Your task to perform on an android device: turn on airplane mode Image 0: 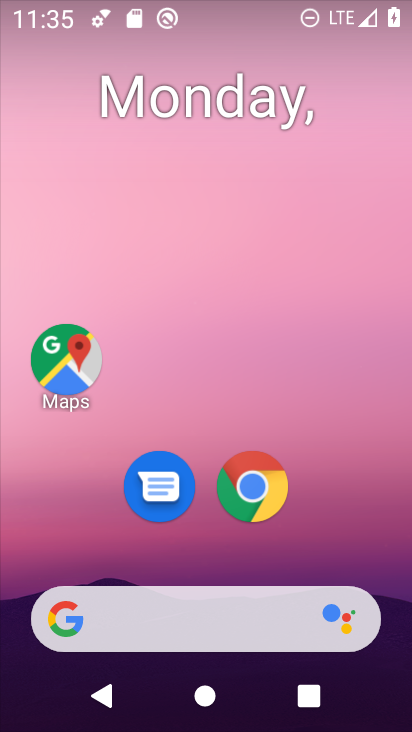
Step 0: drag from (310, 3) to (327, 467)
Your task to perform on an android device: turn on airplane mode Image 1: 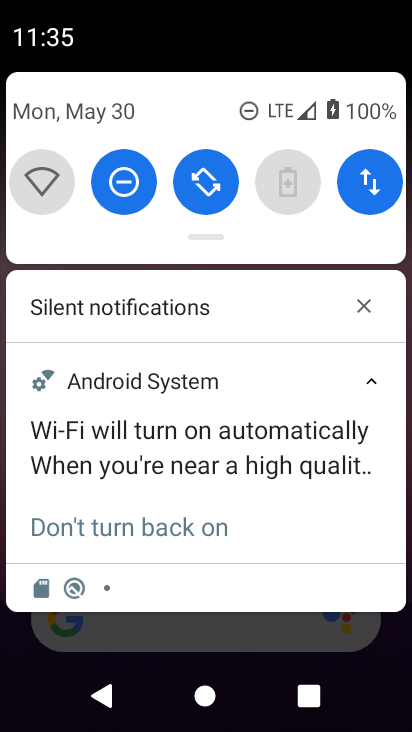
Step 1: drag from (232, 224) to (201, 618)
Your task to perform on an android device: turn on airplane mode Image 2: 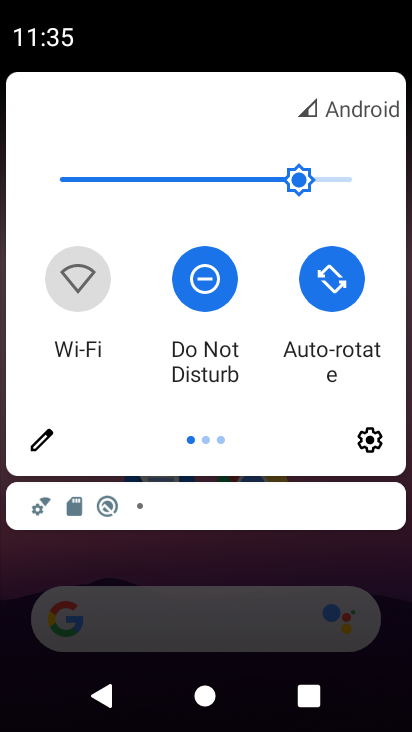
Step 2: drag from (303, 380) to (2, 369)
Your task to perform on an android device: turn on airplane mode Image 3: 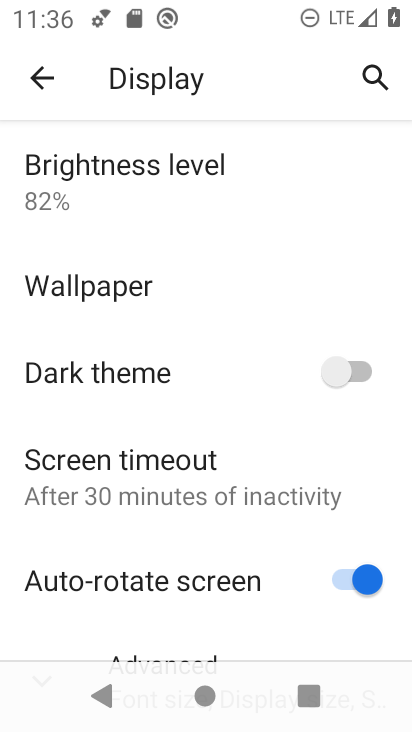
Step 3: click (52, 79)
Your task to perform on an android device: turn on airplane mode Image 4: 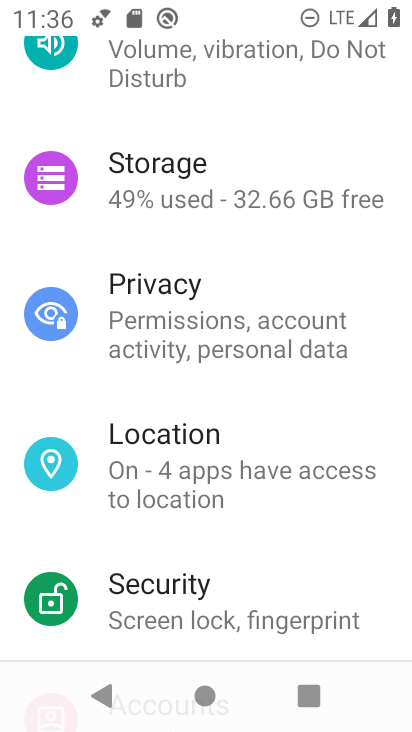
Step 4: drag from (180, 117) to (176, 634)
Your task to perform on an android device: turn on airplane mode Image 5: 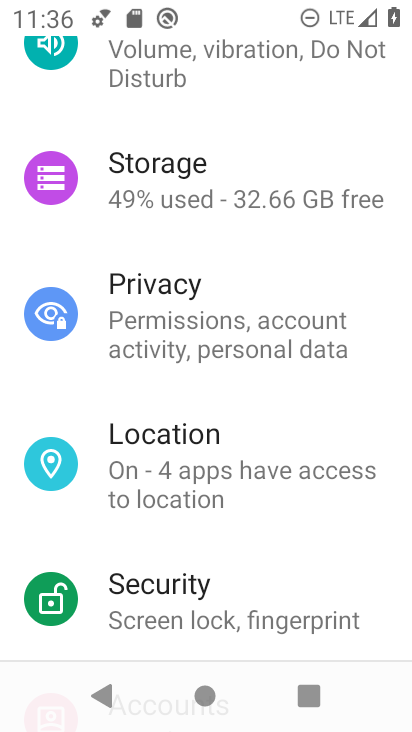
Step 5: drag from (204, 133) to (226, 675)
Your task to perform on an android device: turn on airplane mode Image 6: 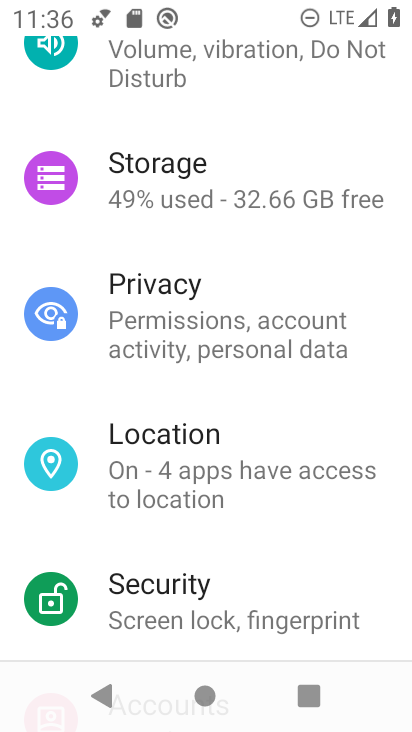
Step 6: drag from (116, 113) to (168, 641)
Your task to perform on an android device: turn on airplane mode Image 7: 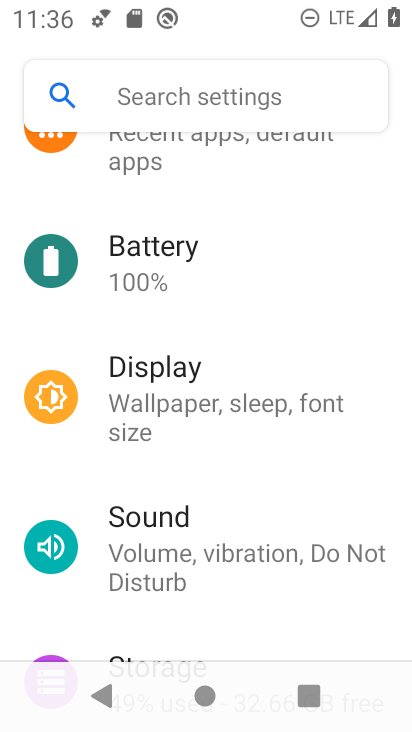
Step 7: drag from (293, 207) to (272, 731)
Your task to perform on an android device: turn on airplane mode Image 8: 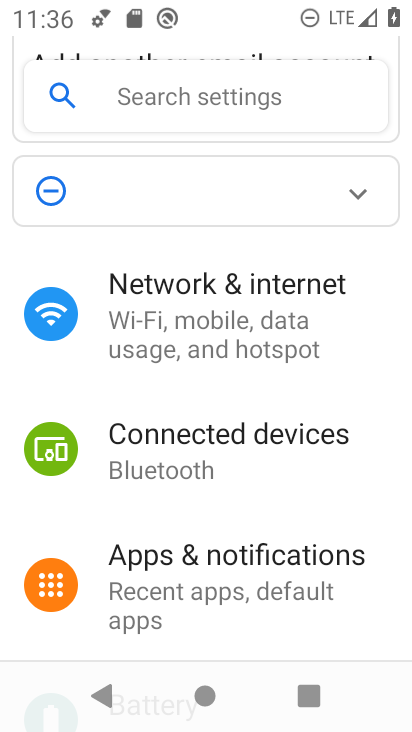
Step 8: click (161, 296)
Your task to perform on an android device: turn on airplane mode Image 9: 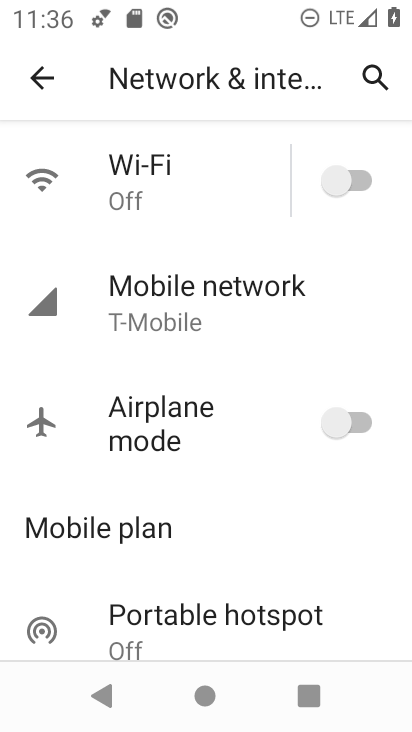
Step 9: click (187, 422)
Your task to perform on an android device: turn on airplane mode Image 10: 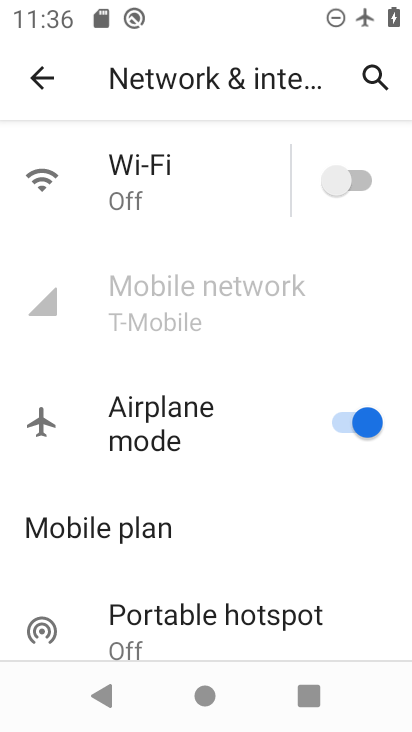
Step 10: task complete